Your task to perform on an android device: What's on my calendar tomorrow? Image 0: 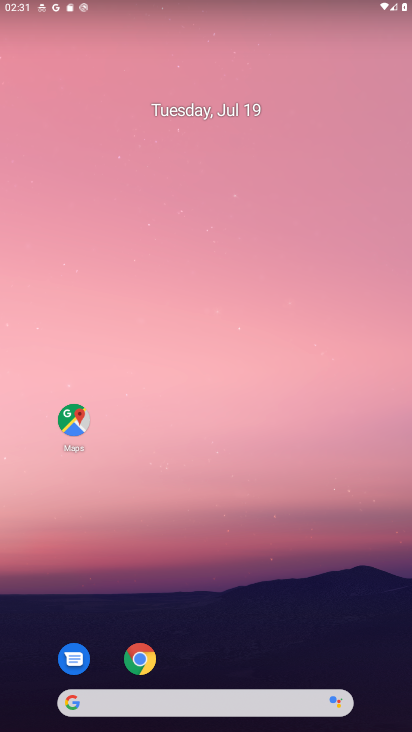
Step 0: drag from (234, 608) to (253, 367)
Your task to perform on an android device: What's on my calendar tomorrow? Image 1: 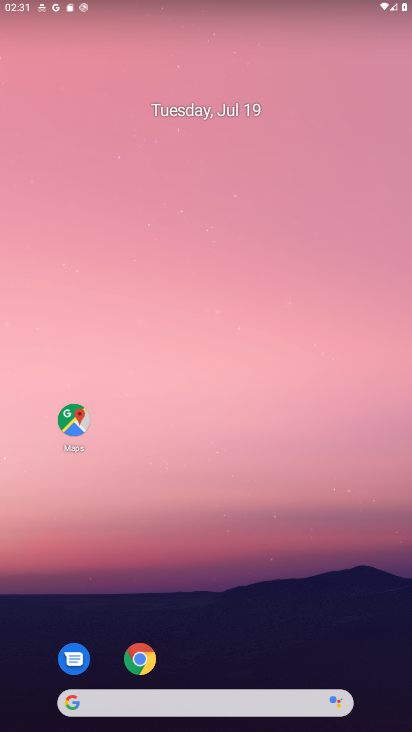
Step 1: drag from (176, 691) to (223, 216)
Your task to perform on an android device: What's on my calendar tomorrow? Image 2: 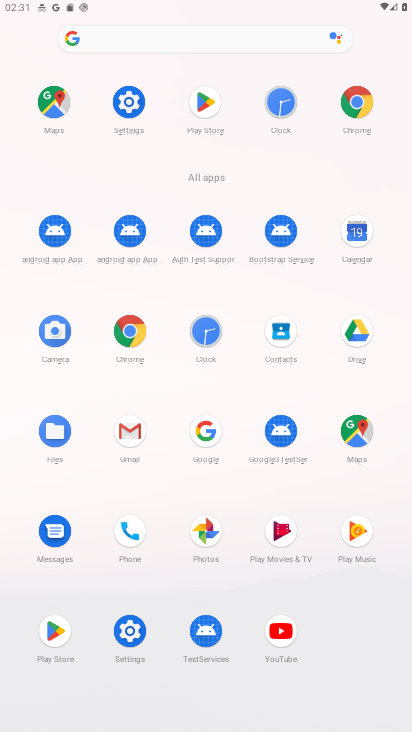
Step 2: click (352, 235)
Your task to perform on an android device: What's on my calendar tomorrow? Image 3: 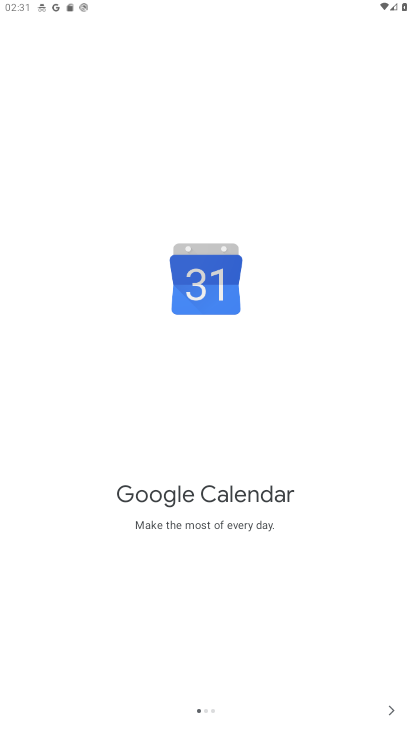
Step 3: click (386, 710)
Your task to perform on an android device: What's on my calendar tomorrow? Image 4: 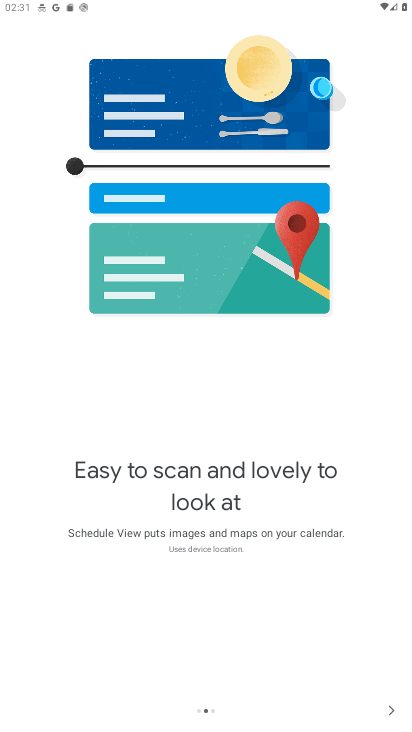
Step 4: click (385, 709)
Your task to perform on an android device: What's on my calendar tomorrow? Image 5: 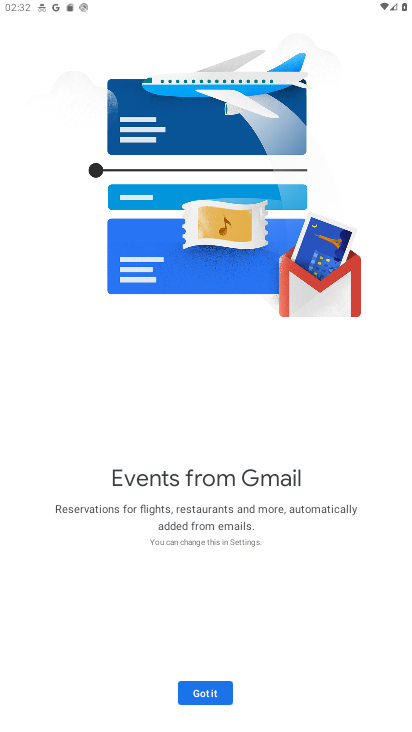
Step 5: click (204, 687)
Your task to perform on an android device: What's on my calendar tomorrow? Image 6: 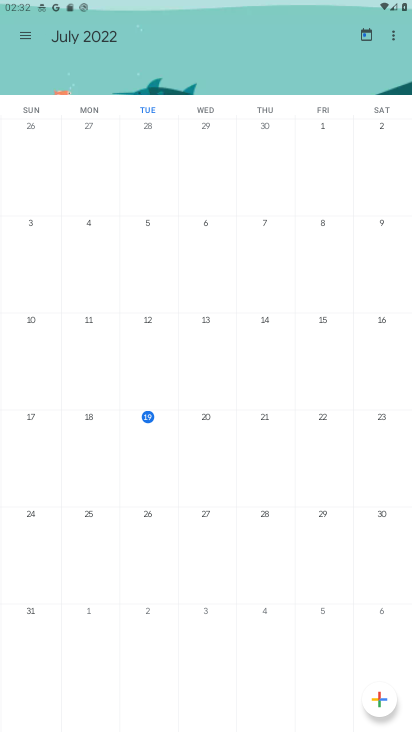
Step 6: click (216, 421)
Your task to perform on an android device: What's on my calendar tomorrow? Image 7: 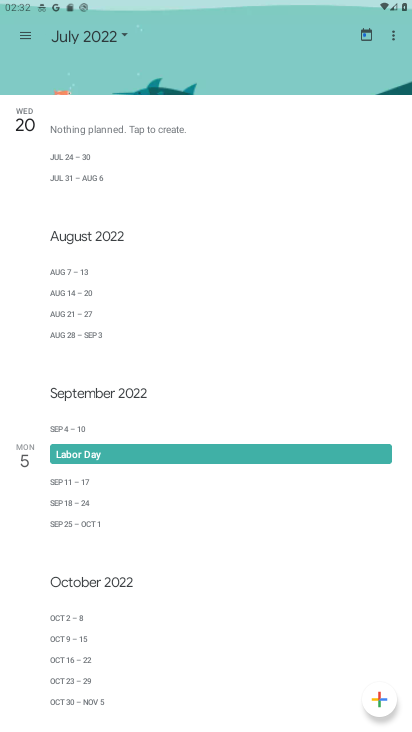
Step 7: drag from (118, 672) to (166, 257)
Your task to perform on an android device: What's on my calendar tomorrow? Image 8: 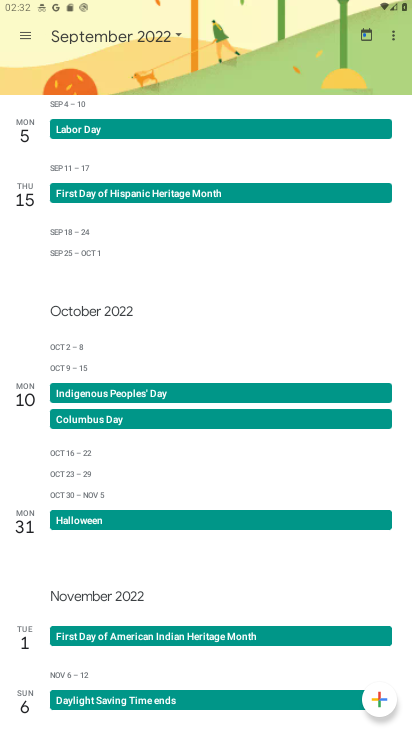
Step 8: click (163, 33)
Your task to perform on an android device: What's on my calendar tomorrow? Image 9: 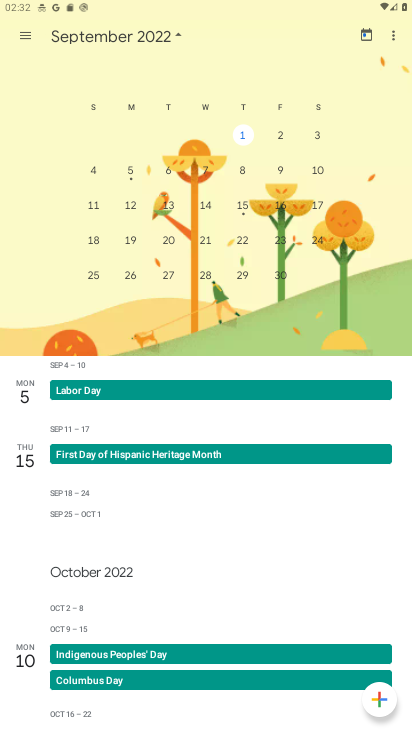
Step 9: drag from (37, 146) to (376, 174)
Your task to perform on an android device: What's on my calendar tomorrow? Image 10: 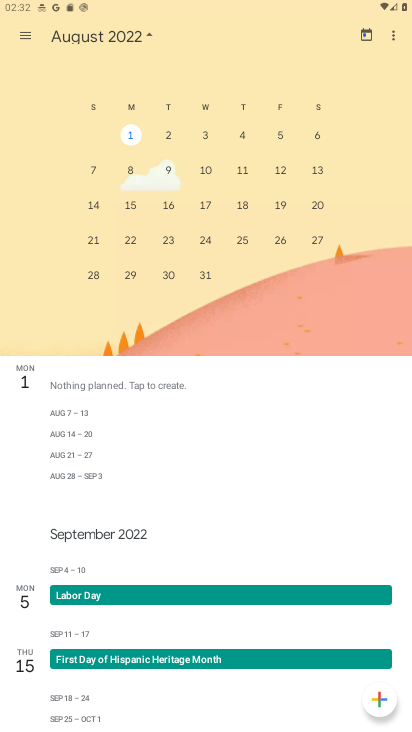
Step 10: drag from (125, 200) to (392, 230)
Your task to perform on an android device: What's on my calendar tomorrow? Image 11: 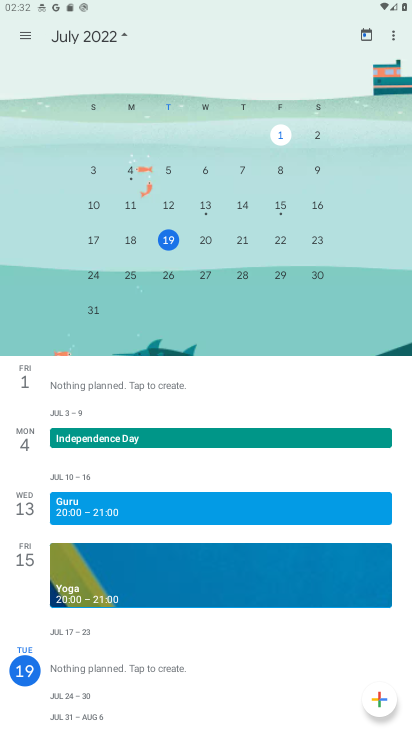
Step 11: click (205, 242)
Your task to perform on an android device: What's on my calendar tomorrow? Image 12: 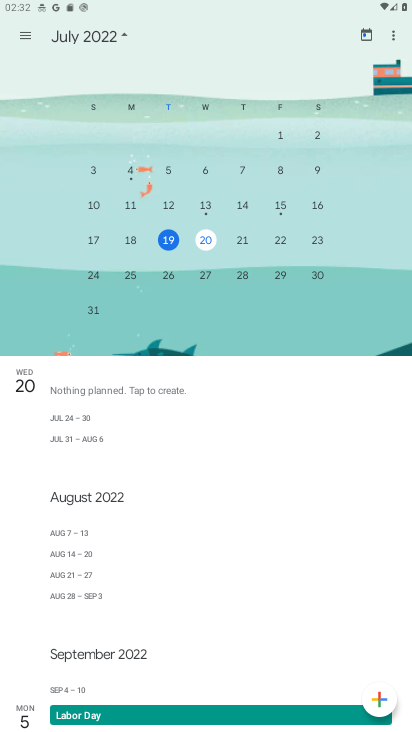
Step 12: task complete